Your task to perform on an android device: find snoozed emails in the gmail app Image 0: 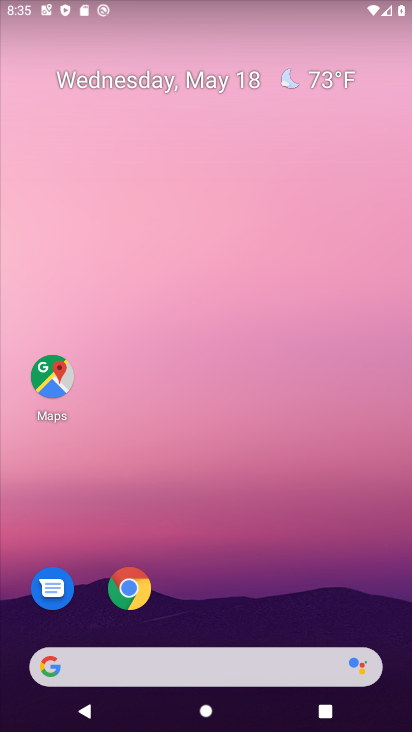
Step 0: drag from (275, 574) to (279, 231)
Your task to perform on an android device: find snoozed emails in the gmail app Image 1: 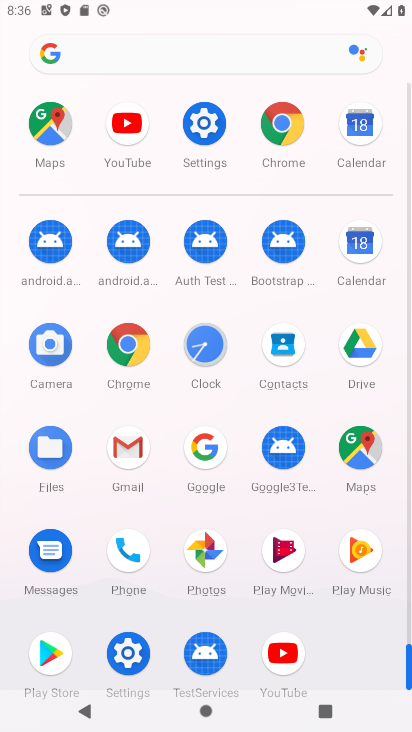
Step 1: click (130, 442)
Your task to perform on an android device: find snoozed emails in the gmail app Image 2: 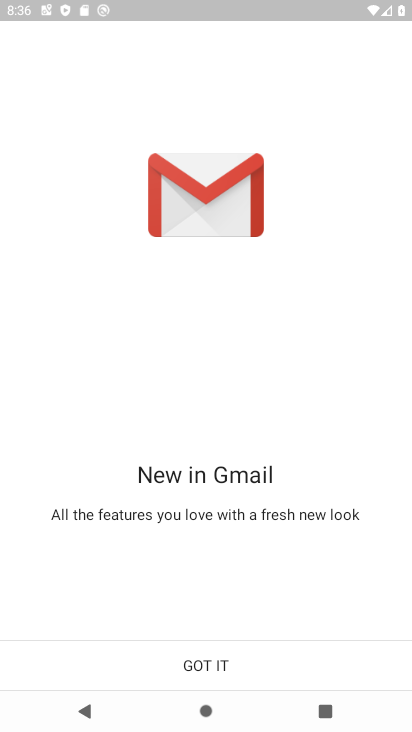
Step 2: click (216, 679)
Your task to perform on an android device: find snoozed emails in the gmail app Image 3: 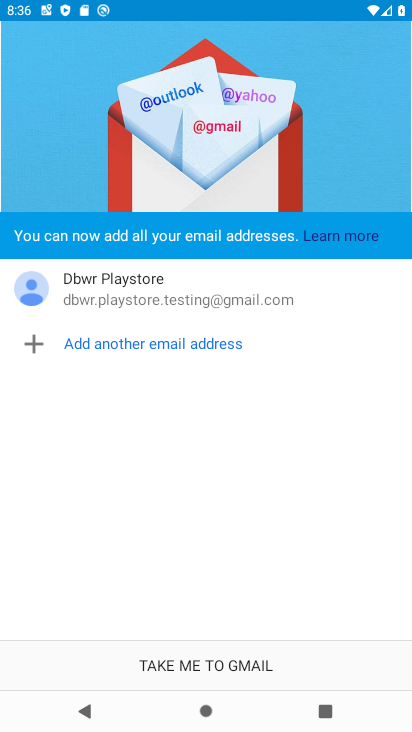
Step 3: click (219, 665)
Your task to perform on an android device: find snoozed emails in the gmail app Image 4: 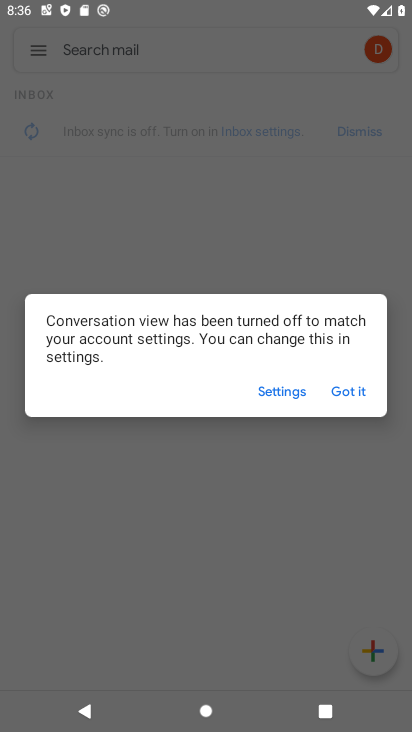
Step 4: click (341, 386)
Your task to perform on an android device: find snoozed emails in the gmail app Image 5: 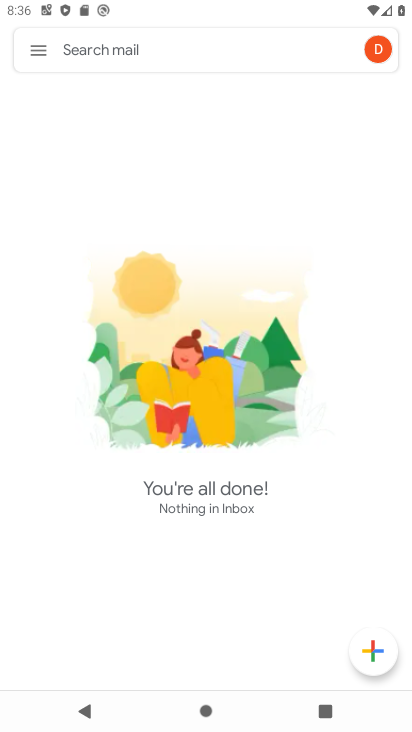
Step 5: click (31, 54)
Your task to perform on an android device: find snoozed emails in the gmail app Image 6: 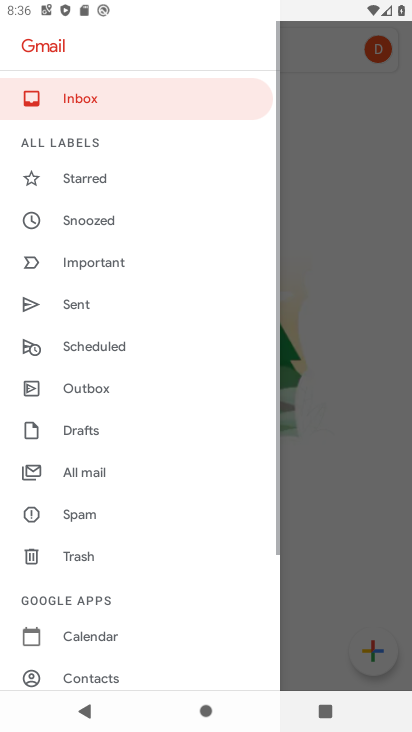
Step 6: click (98, 217)
Your task to perform on an android device: find snoozed emails in the gmail app Image 7: 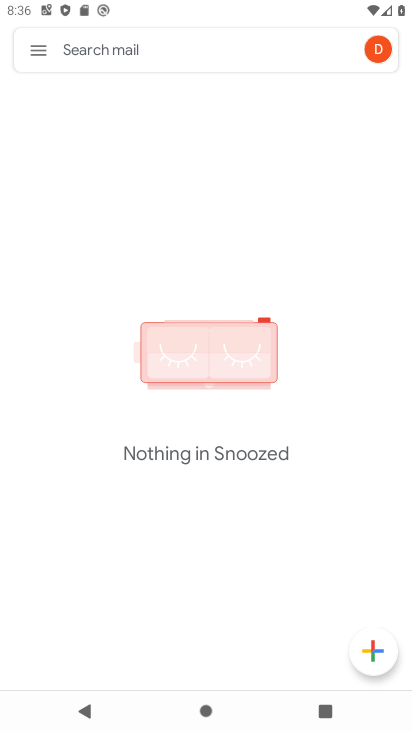
Step 7: task complete